Your task to perform on an android device: Search for vegetarian restaurants on Maps Image 0: 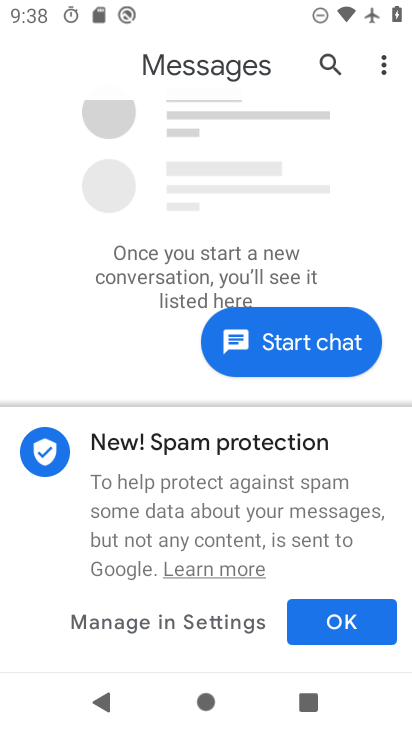
Step 0: press home button
Your task to perform on an android device: Search for vegetarian restaurants on Maps Image 1: 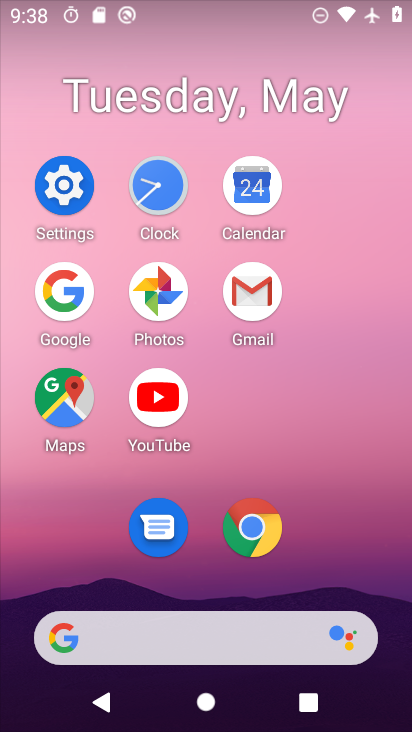
Step 1: click (70, 389)
Your task to perform on an android device: Search for vegetarian restaurants on Maps Image 2: 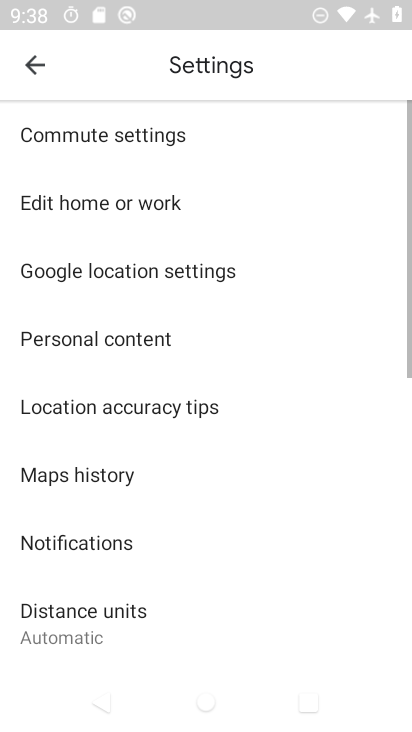
Step 2: click (48, 55)
Your task to perform on an android device: Search for vegetarian restaurants on Maps Image 3: 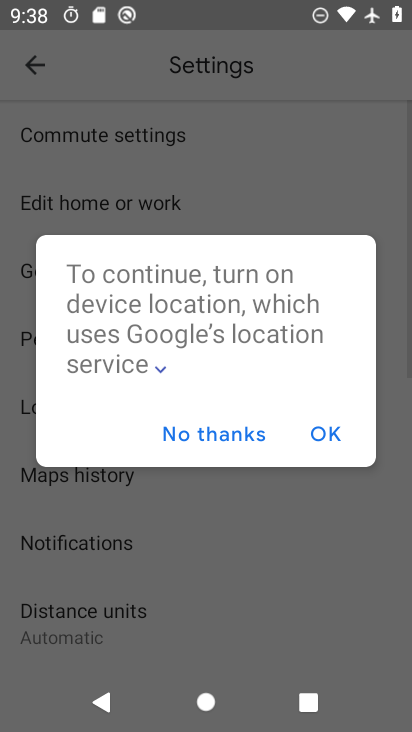
Step 3: click (326, 421)
Your task to perform on an android device: Search for vegetarian restaurants on Maps Image 4: 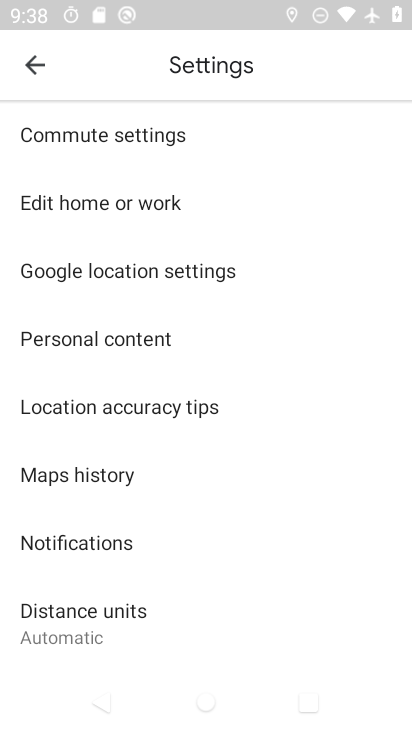
Step 4: click (29, 62)
Your task to perform on an android device: Search for vegetarian restaurants on Maps Image 5: 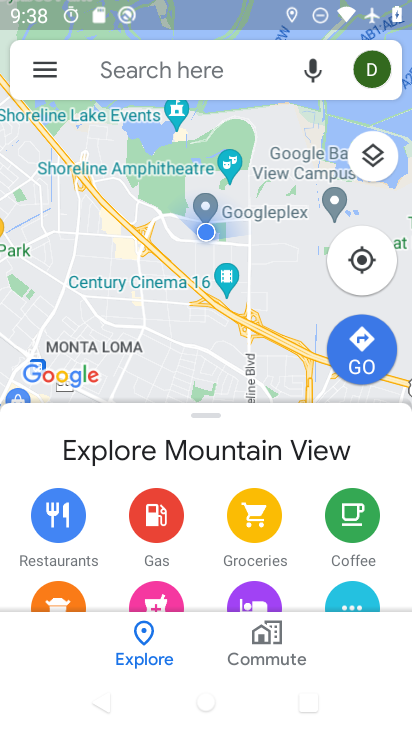
Step 5: click (165, 65)
Your task to perform on an android device: Search for vegetarian restaurants on Maps Image 6: 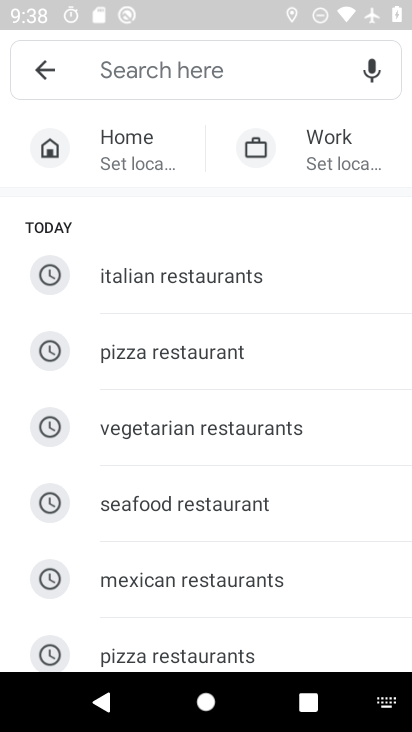
Step 6: click (219, 434)
Your task to perform on an android device: Search for vegetarian restaurants on Maps Image 7: 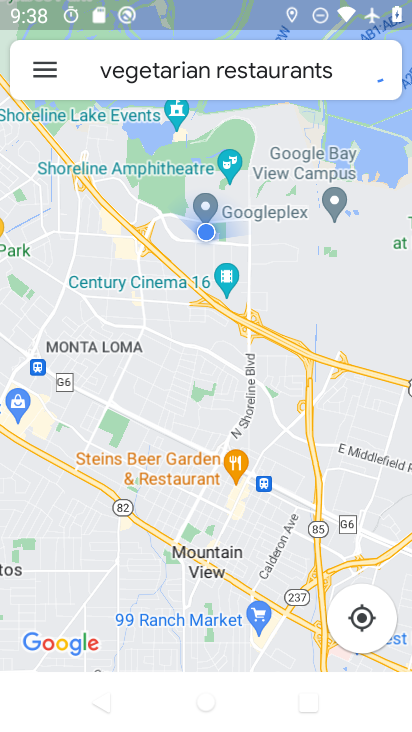
Step 7: task complete